Your task to perform on an android device: toggle sleep mode Image 0: 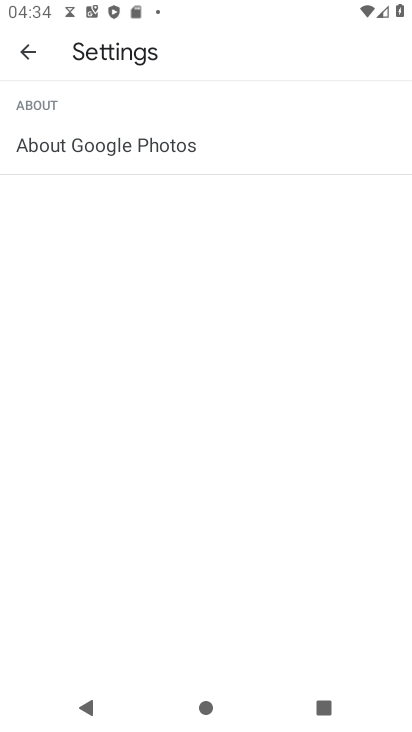
Step 0: press back button
Your task to perform on an android device: toggle sleep mode Image 1: 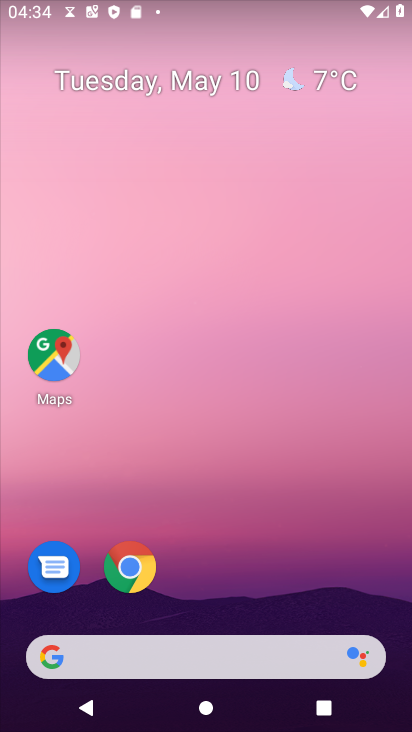
Step 1: drag from (235, 558) to (191, 197)
Your task to perform on an android device: toggle sleep mode Image 2: 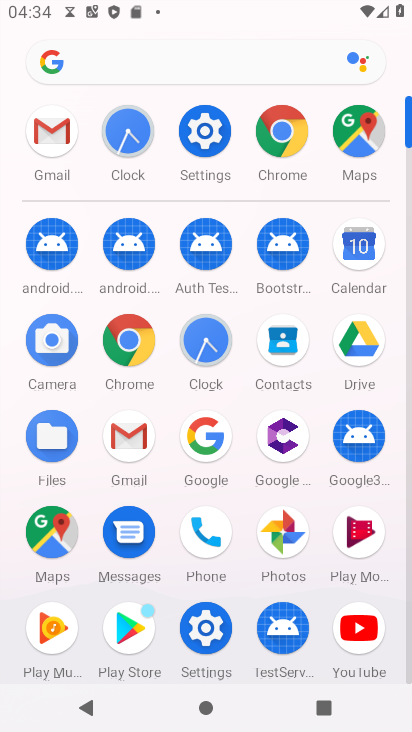
Step 2: click (199, 130)
Your task to perform on an android device: toggle sleep mode Image 3: 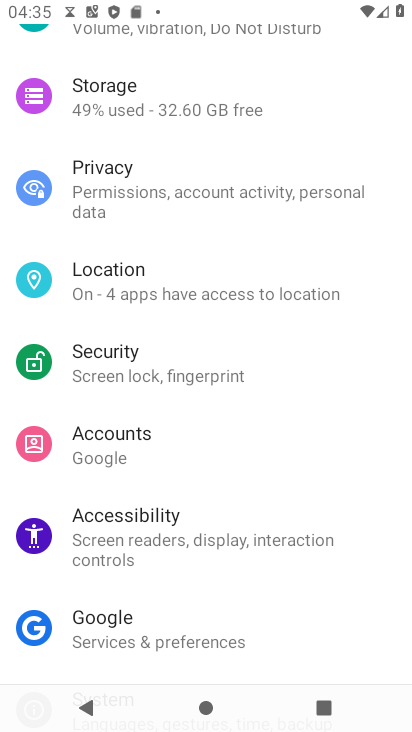
Step 3: drag from (217, 281) to (236, 345)
Your task to perform on an android device: toggle sleep mode Image 4: 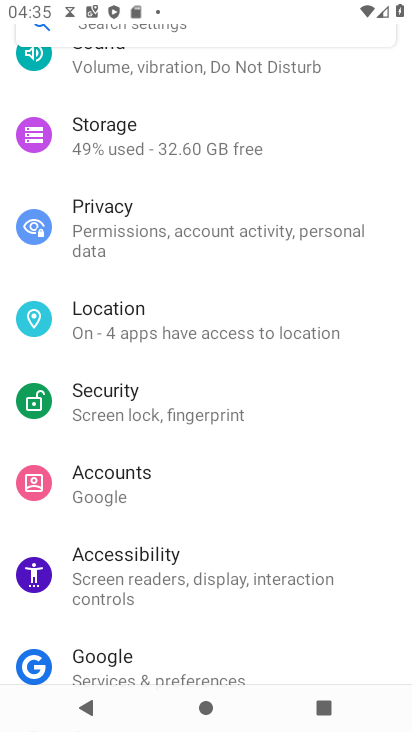
Step 4: drag from (213, 204) to (220, 308)
Your task to perform on an android device: toggle sleep mode Image 5: 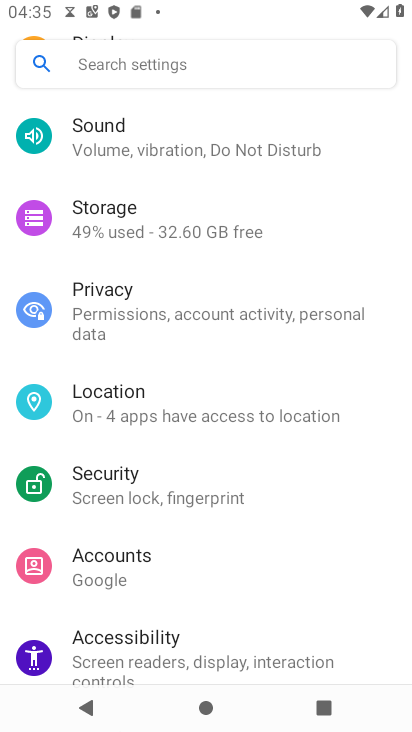
Step 5: drag from (222, 181) to (231, 291)
Your task to perform on an android device: toggle sleep mode Image 6: 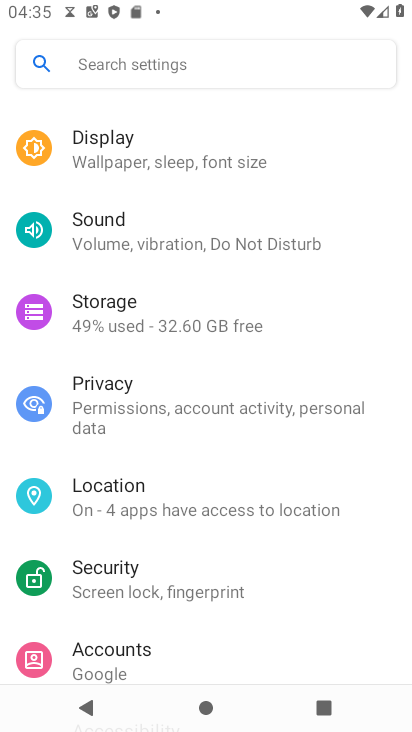
Step 6: drag from (200, 203) to (232, 313)
Your task to perform on an android device: toggle sleep mode Image 7: 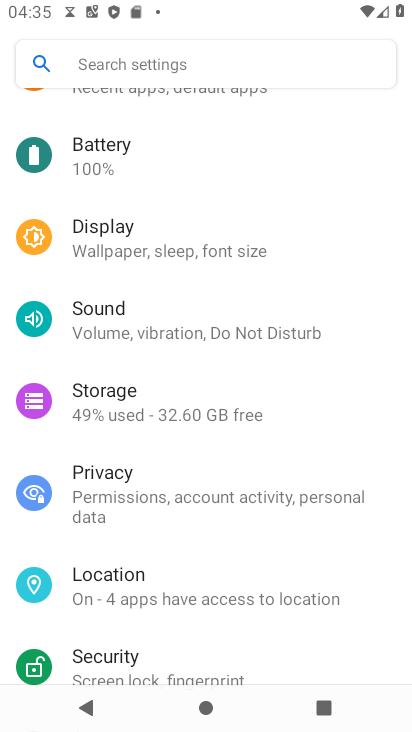
Step 7: drag from (193, 167) to (239, 335)
Your task to perform on an android device: toggle sleep mode Image 8: 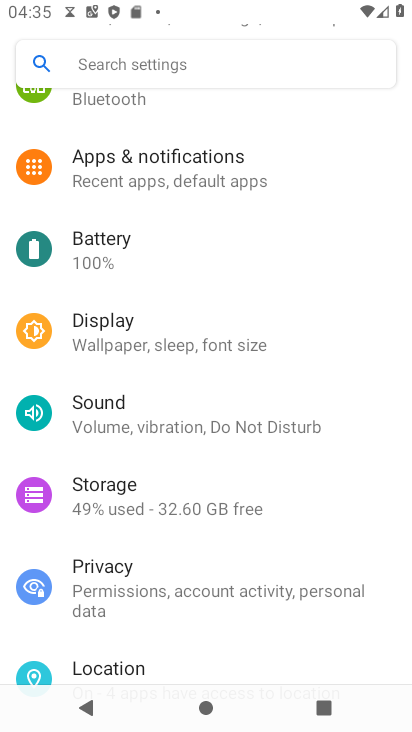
Step 8: drag from (179, 211) to (233, 378)
Your task to perform on an android device: toggle sleep mode Image 9: 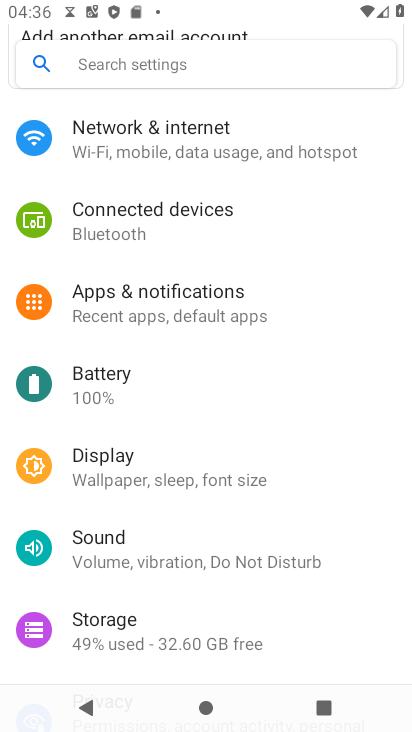
Step 9: click (96, 470)
Your task to perform on an android device: toggle sleep mode Image 10: 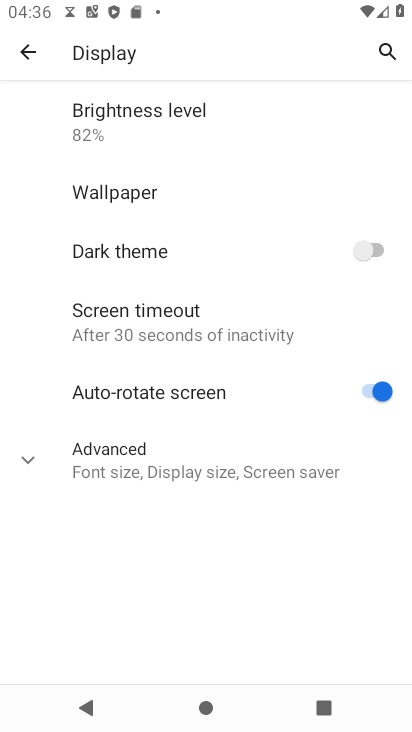
Step 10: click (226, 469)
Your task to perform on an android device: toggle sleep mode Image 11: 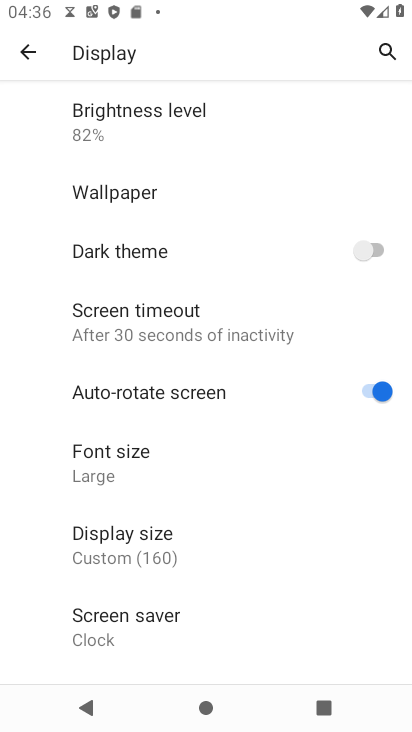
Step 11: task complete